Your task to perform on an android device: Show me recent news Image 0: 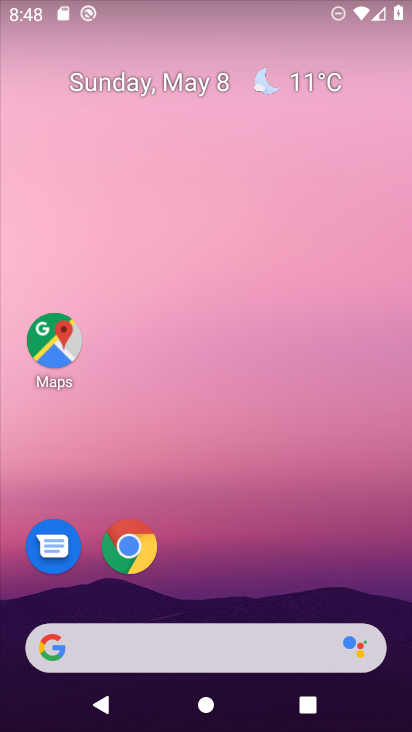
Step 0: drag from (322, 518) to (244, 599)
Your task to perform on an android device: Show me recent news Image 1: 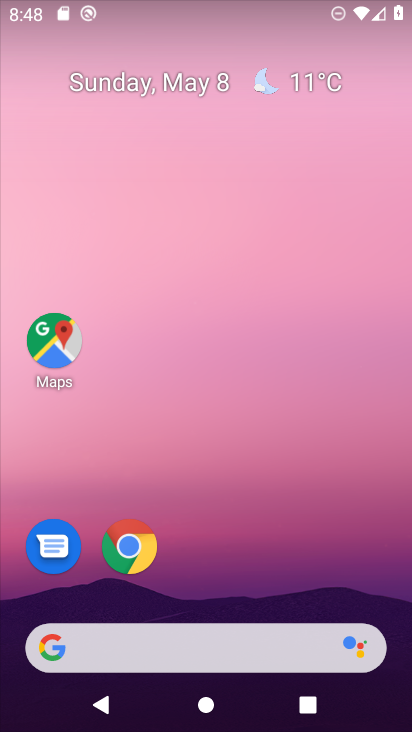
Step 1: click (135, 648)
Your task to perform on an android device: Show me recent news Image 2: 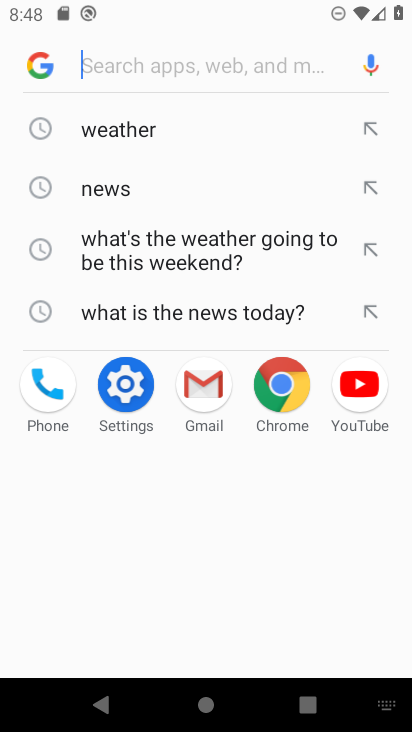
Step 2: click (93, 171)
Your task to perform on an android device: Show me recent news Image 3: 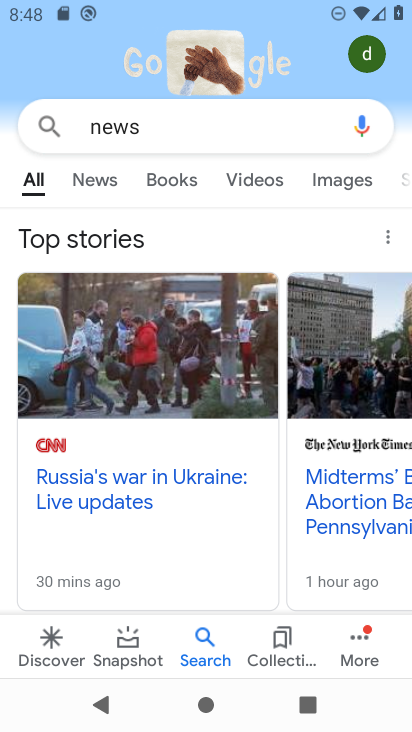
Step 3: click (109, 178)
Your task to perform on an android device: Show me recent news Image 4: 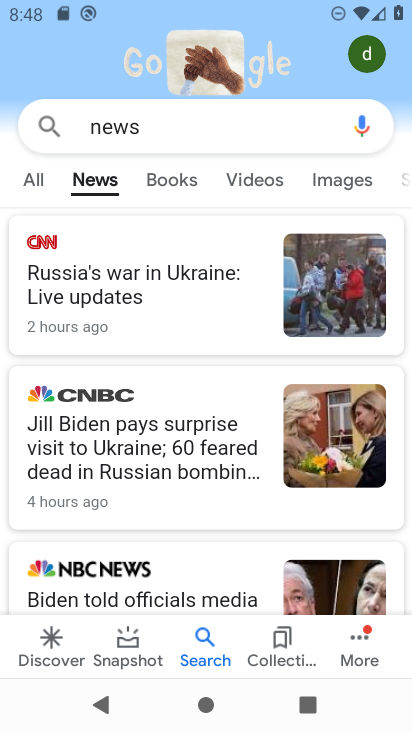
Step 4: task complete